Your task to perform on an android device: add a contact Image 0: 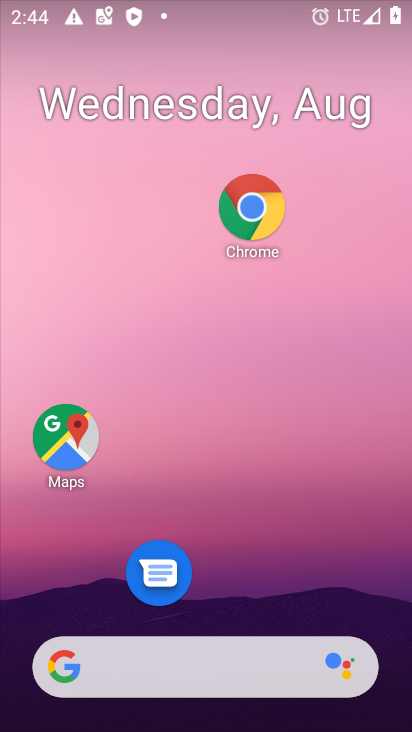
Step 0: drag from (249, 620) to (337, 79)
Your task to perform on an android device: add a contact Image 1: 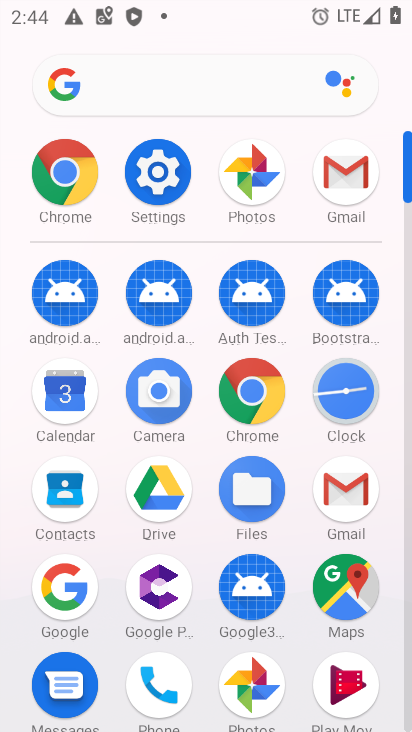
Step 1: drag from (209, 543) to (254, 131)
Your task to perform on an android device: add a contact Image 2: 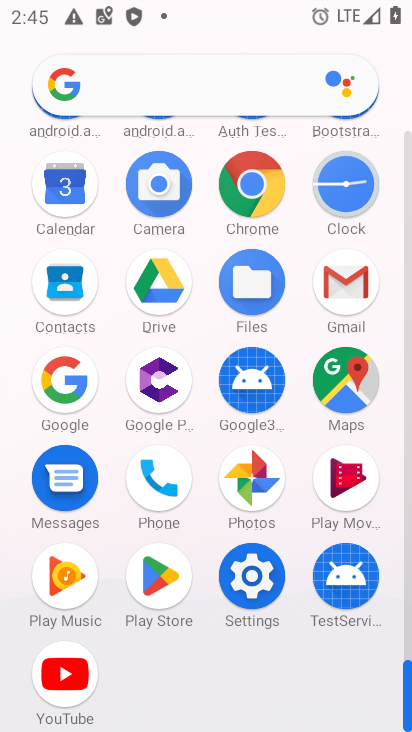
Step 2: click (67, 282)
Your task to perform on an android device: add a contact Image 3: 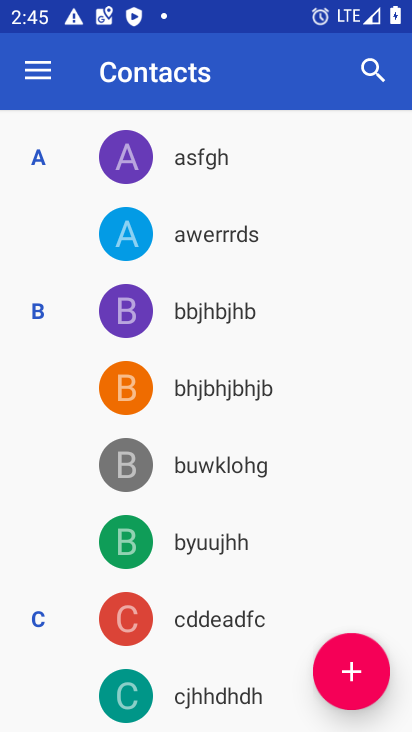
Step 3: click (326, 682)
Your task to perform on an android device: add a contact Image 4: 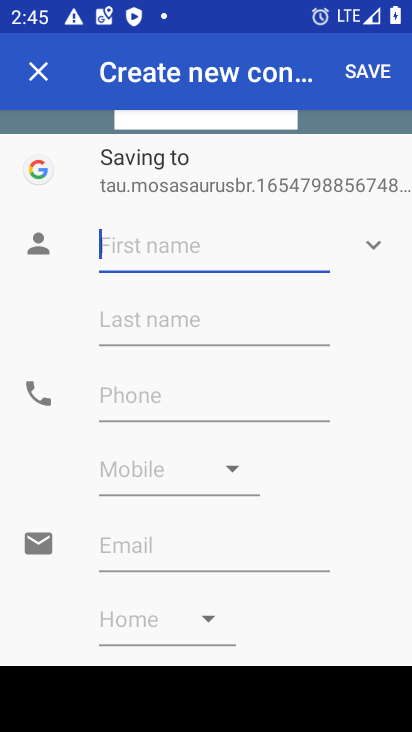
Step 4: type "tdfxcgvh"
Your task to perform on an android device: add a contact Image 5: 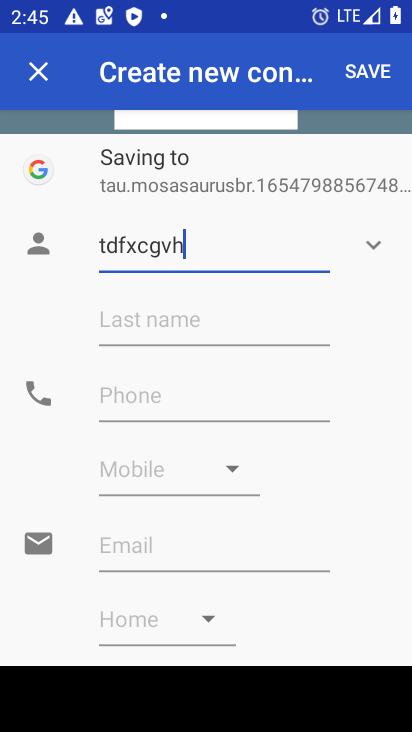
Step 5: click (152, 399)
Your task to perform on an android device: add a contact Image 6: 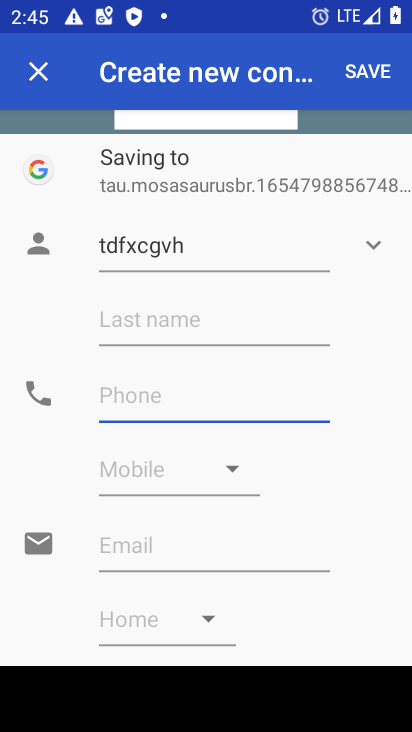
Step 6: type "98765456789"
Your task to perform on an android device: add a contact Image 7: 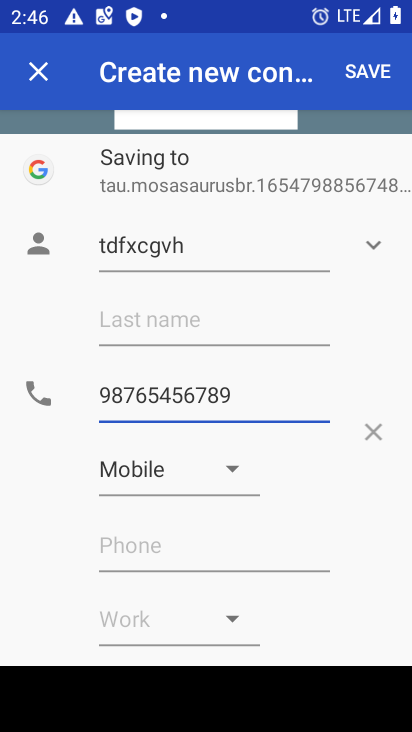
Step 7: click (375, 78)
Your task to perform on an android device: add a contact Image 8: 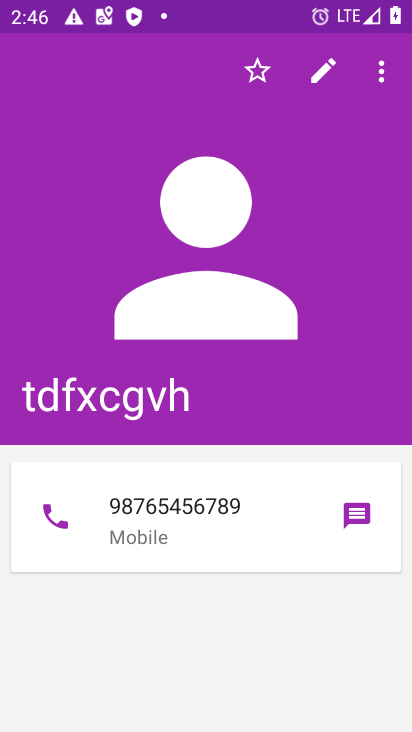
Step 8: task complete